Your task to perform on an android device: Open the phone app and click the voicemail tab. Image 0: 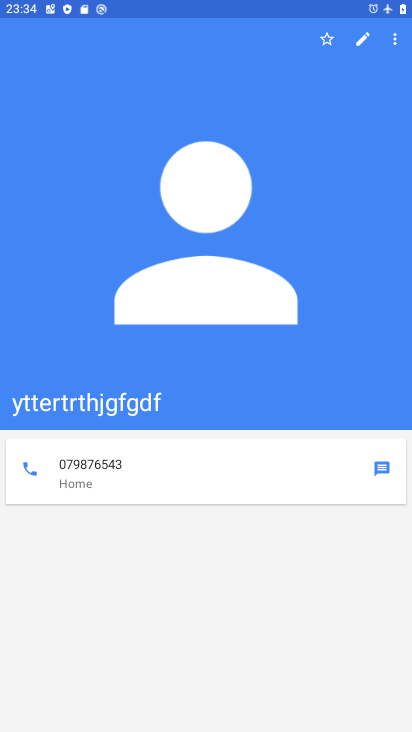
Step 0: press home button
Your task to perform on an android device: Open the phone app and click the voicemail tab. Image 1: 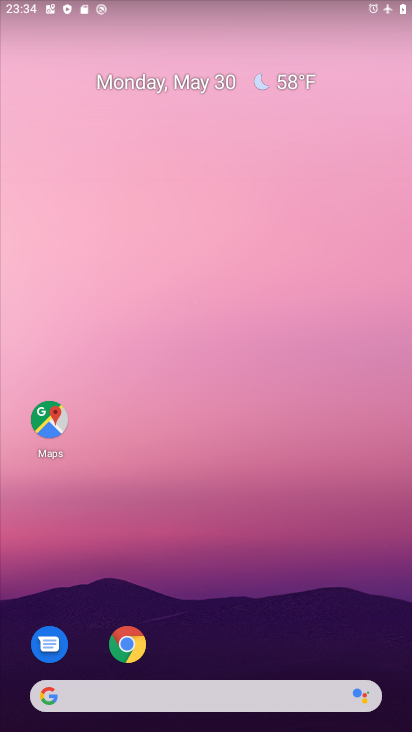
Step 1: drag from (286, 648) to (246, 106)
Your task to perform on an android device: Open the phone app and click the voicemail tab. Image 2: 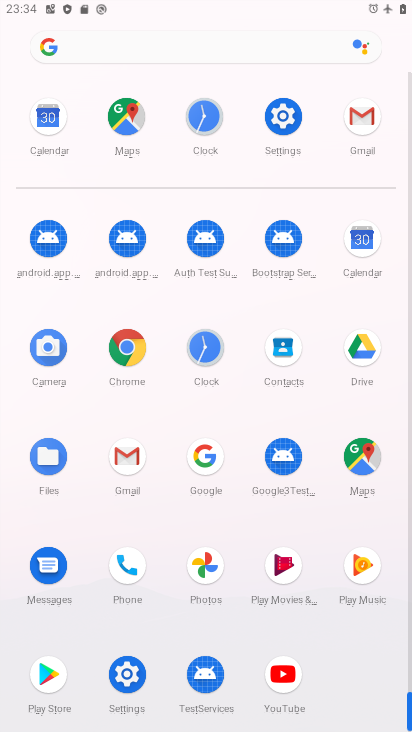
Step 2: click (122, 569)
Your task to perform on an android device: Open the phone app and click the voicemail tab. Image 3: 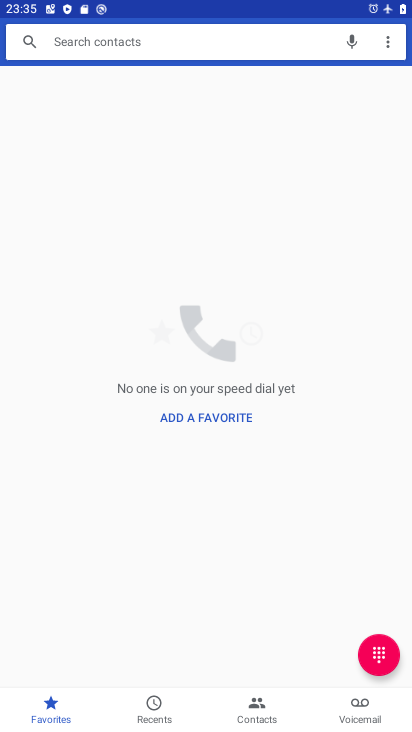
Step 3: click (368, 706)
Your task to perform on an android device: Open the phone app and click the voicemail tab. Image 4: 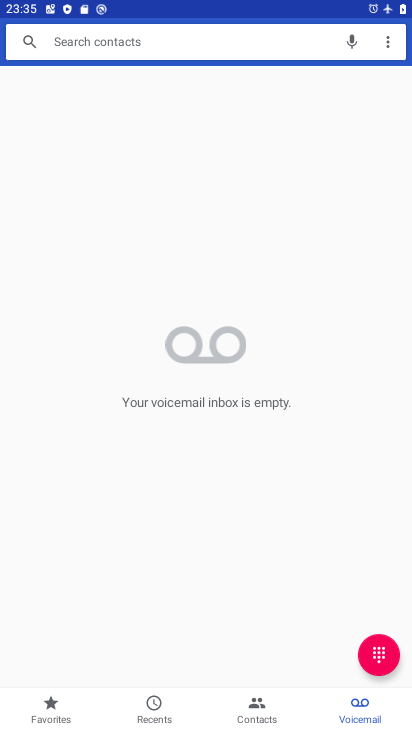
Step 4: task complete